Your task to perform on an android device: turn off location Image 0: 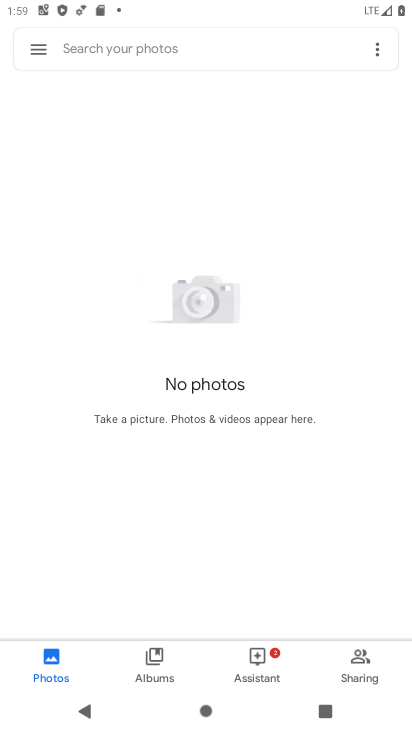
Step 0: press home button
Your task to perform on an android device: turn off location Image 1: 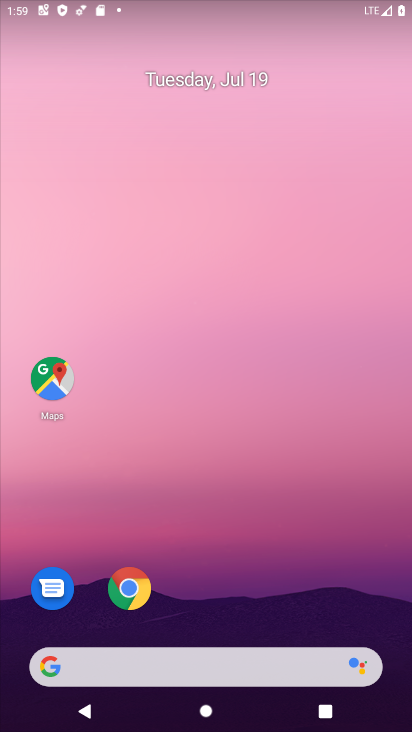
Step 1: drag from (235, 555) to (208, 183)
Your task to perform on an android device: turn off location Image 2: 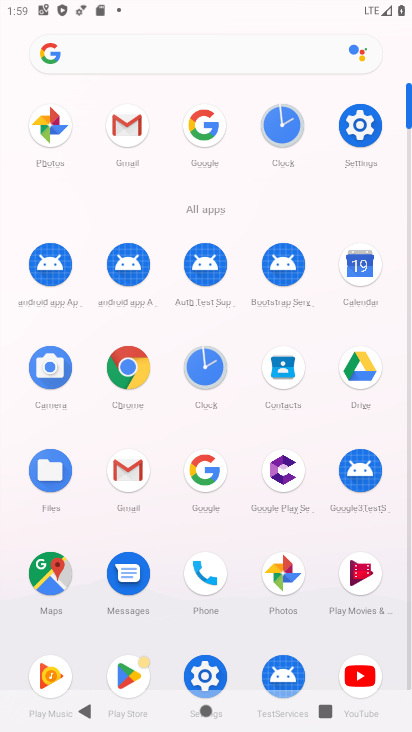
Step 2: click (359, 127)
Your task to perform on an android device: turn off location Image 3: 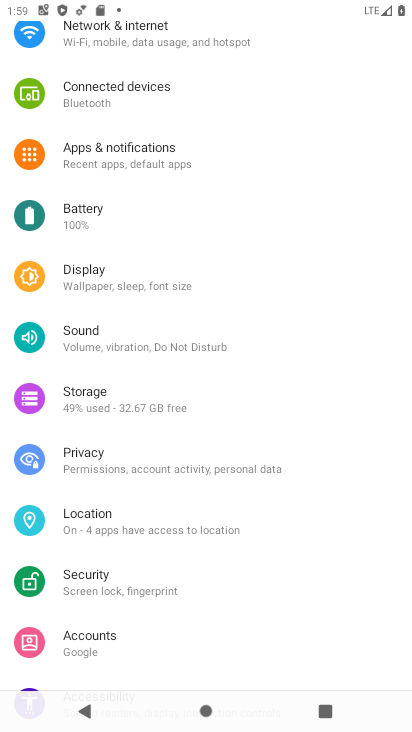
Step 3: click (87, 506)
Your task to perform on an android device: turn off location Image 4: 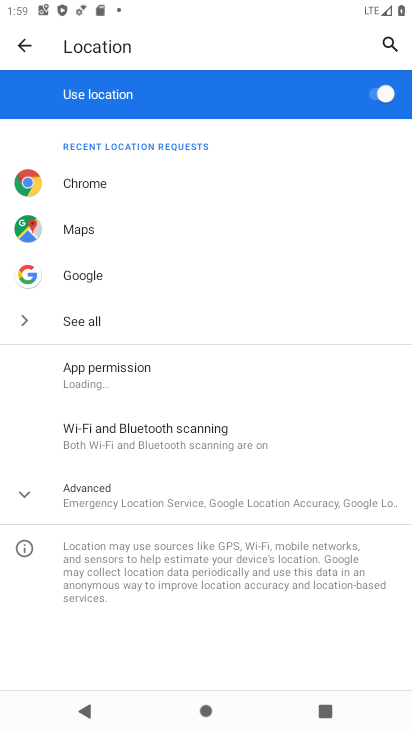
Step 4: click (393, 85)
Your task to perform on an android device: turn off location Image 5: 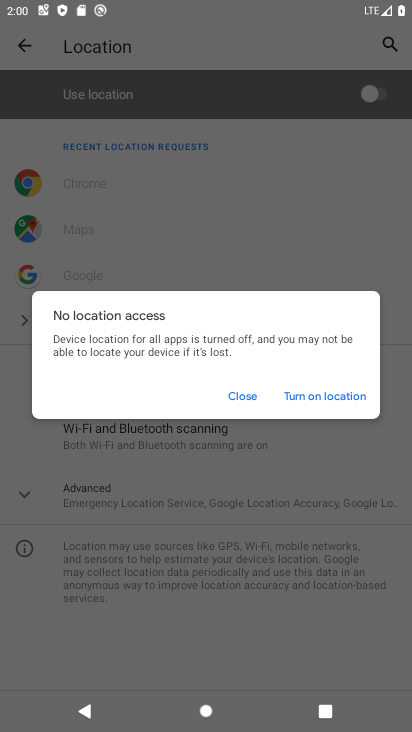
Step 5: click (240, 391)
Your task to perform on an android device: turn off location Image 6: 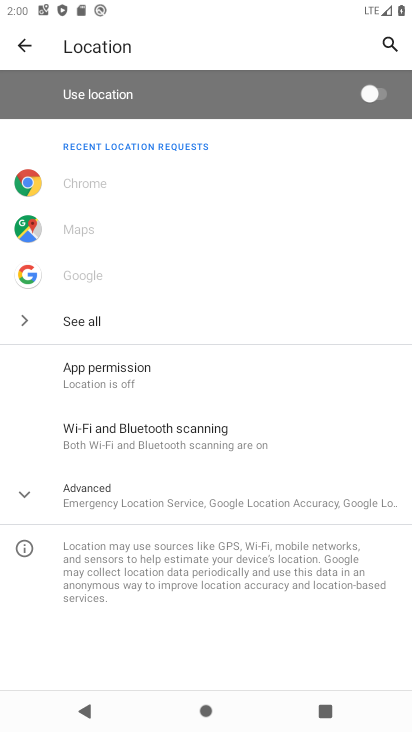
Step 6: task complete